Your task to perform on an android device: check the backup settings in the google photos Image 0: 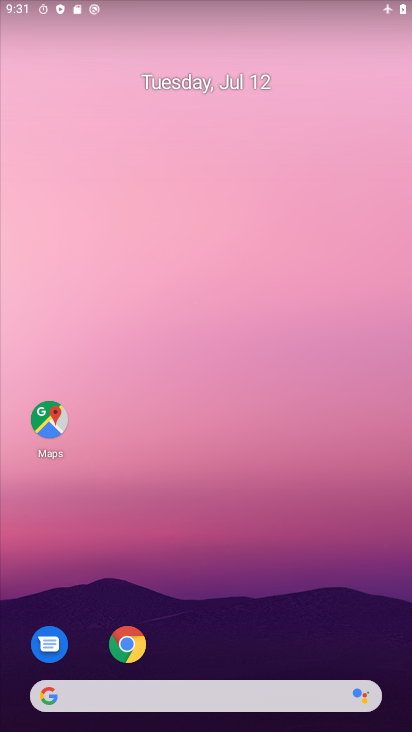
Step 0: drag from (229, 652) to (234, 160)
Your task to perform on an android device: check the backup settings in the google photos Image 1: 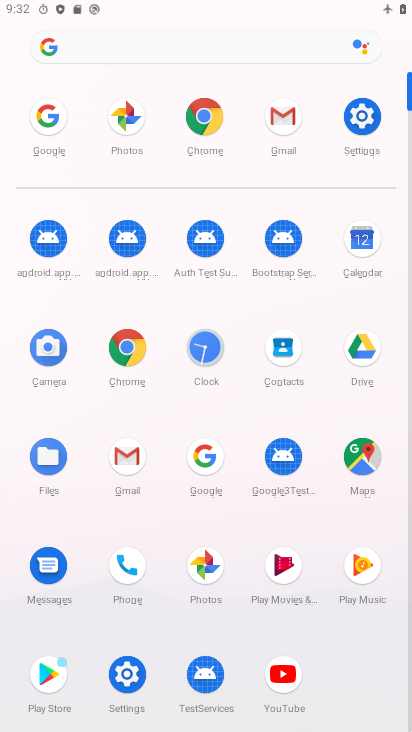
Step 1: click (132, 136)
Your task to perform on an android device: check the backup settings in the google photos Image 2: 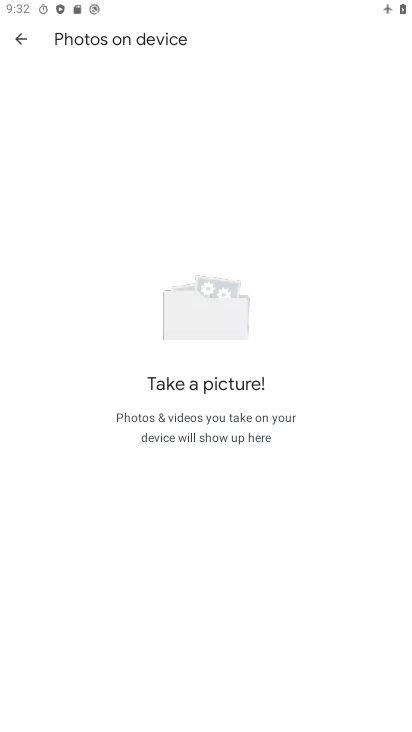
Step 2: click (34, 33)
Your task to perform on an android device: check the backup settings in the google photos Image 3: 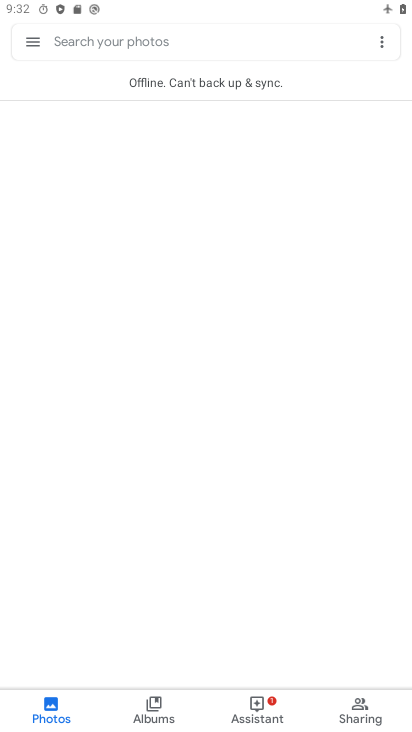
Step 3: click (34, 33)
Your task to perform on an android device: check the backup settings in the google photos Image 4: 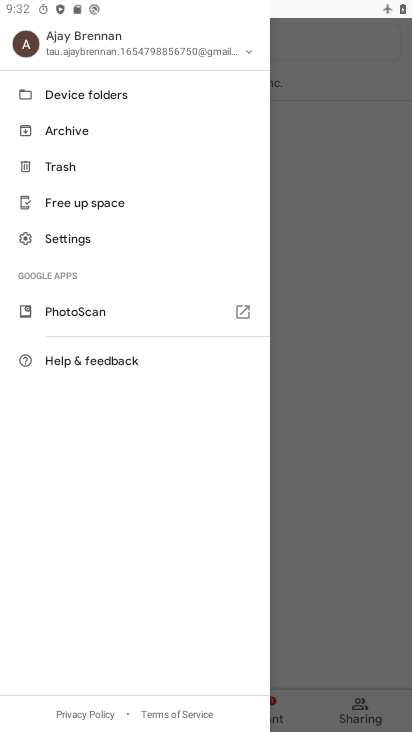
Step 4: click (97, 241)
Your task to perform on an android device: check the backup settings in the google photos Image 5: 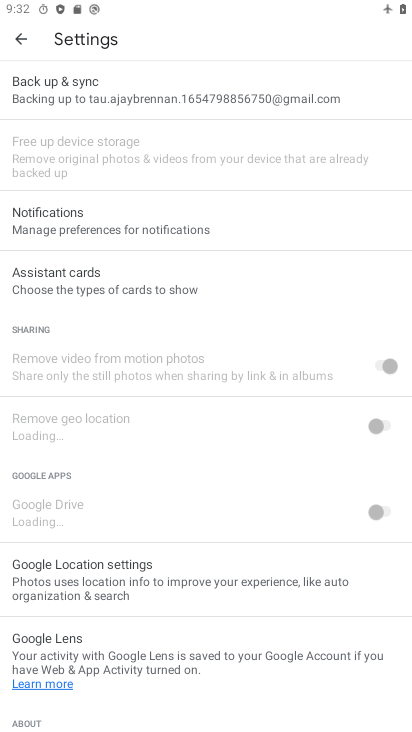
Step 5: click (154, 98)
Your task to perform on an android device: check the backup settings in the google photos Image 6: 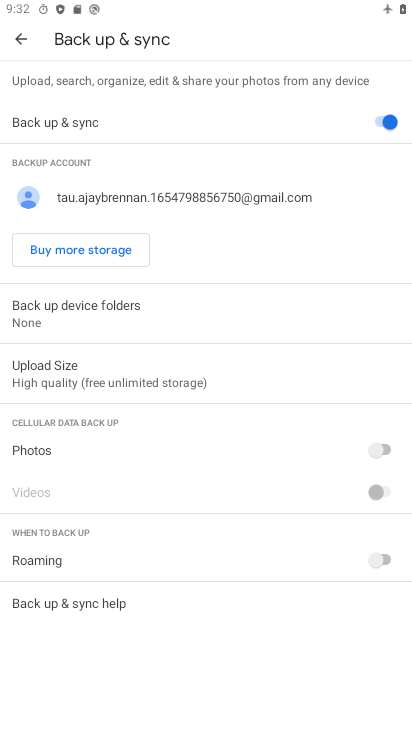
Step 6: task complete